Your task to perform on an android device: Open eBay Image 0: 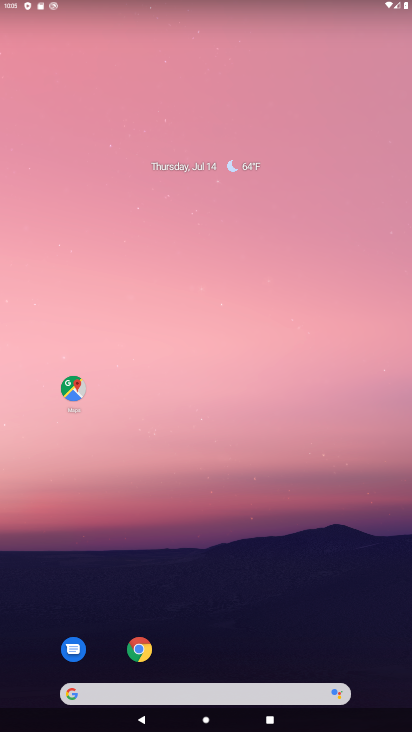
Step 0: drag from (258, 632) to (290, 214)
Your task to perform on an android device: Open eBay Image 1: 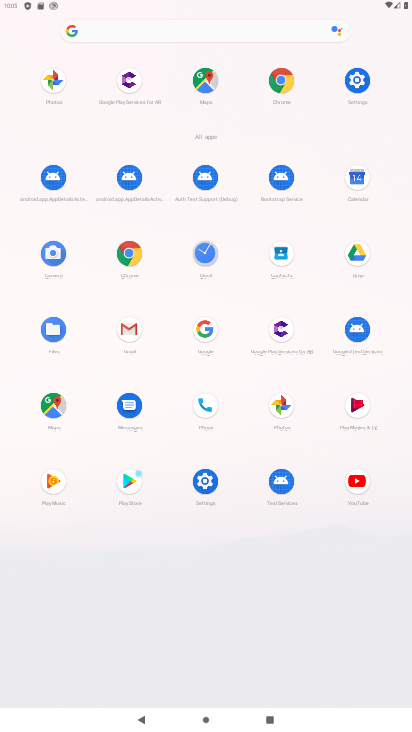
Step 1: click (125, 262)
Your task to perform on an android device: Open eBay Image 2: 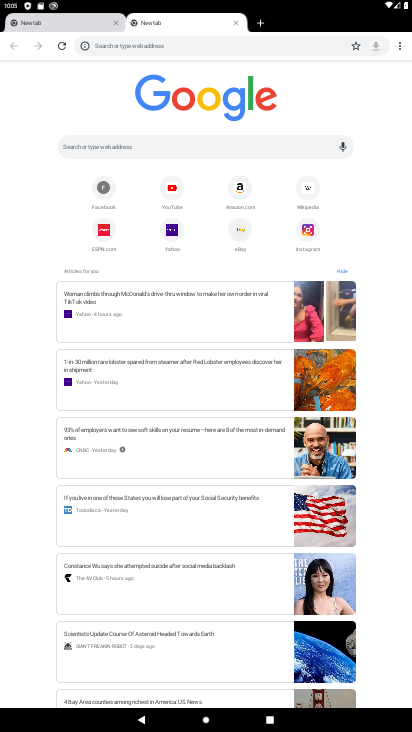
Step 2: click (164, 42)
Your task to perform on an android device: Open eBay Image 3: 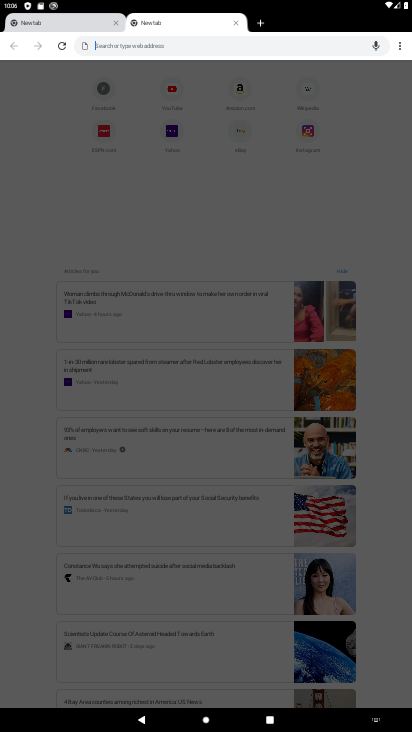
Step 3: type "eBay"
Your task to perform on an android device: Open eBay Image 4: 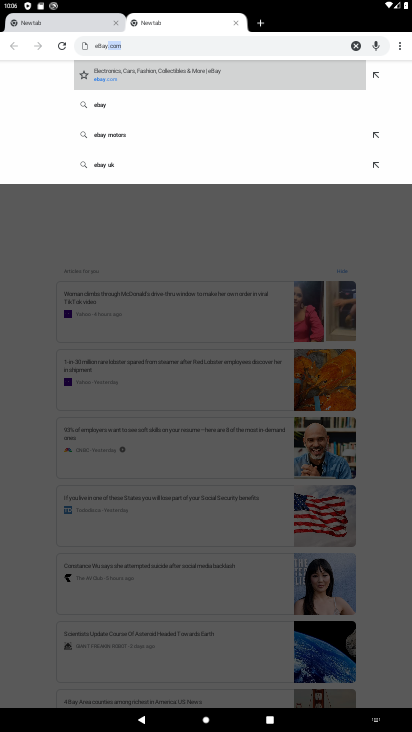
Step 4: click (116, 80)
Your task to perform on an android device: Open eBay Image 5: 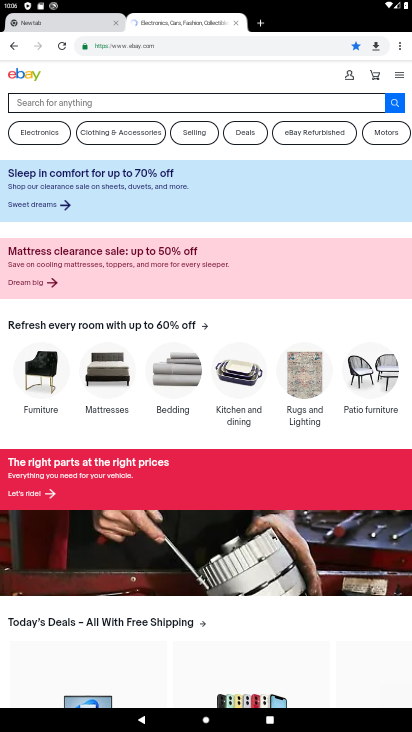
Step 5: task complete